Your task to perform on an android device: Open Wikipedia Image 0: 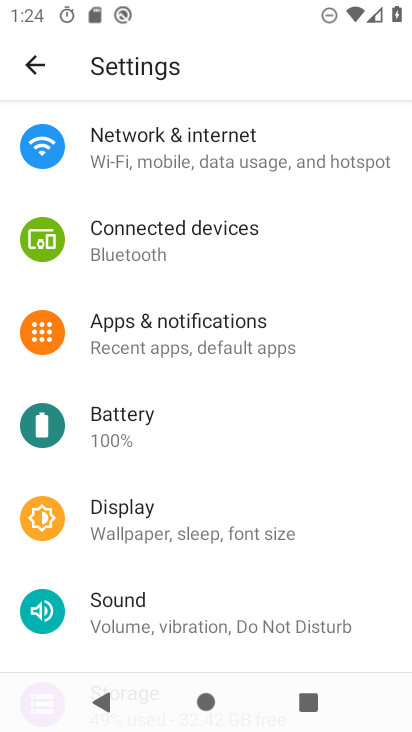
Step 0: press home button
Your task to perform on an android device: Open Wikipedia Image 1: 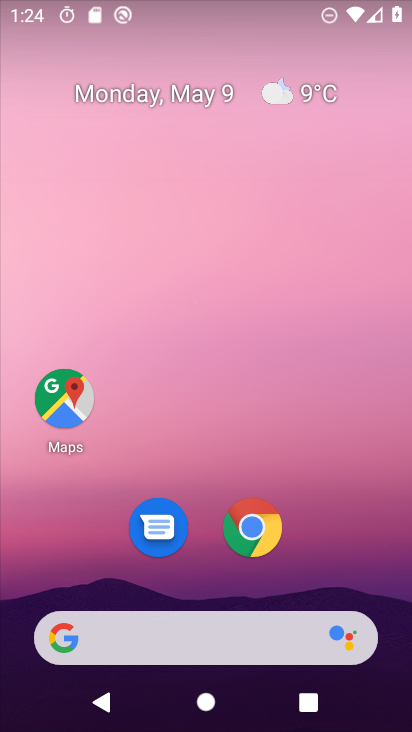
Step 1: click (259, 542)
Your task to perform on an android device: Open Wikipedia Image 2: 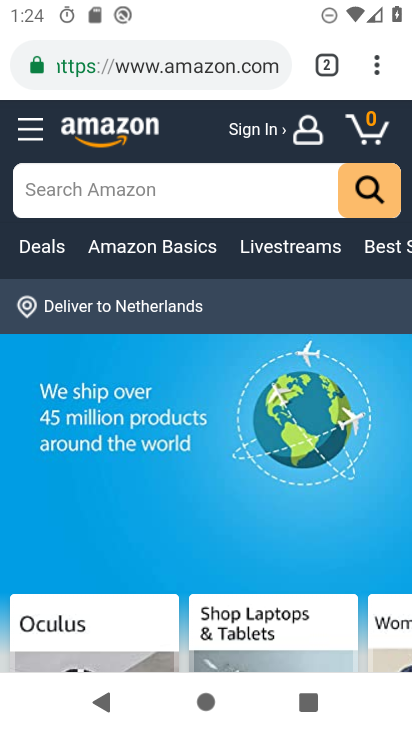
Step 2: click (329, 64)
Your task to perform on an android device: Open Wikipedia Image 3: 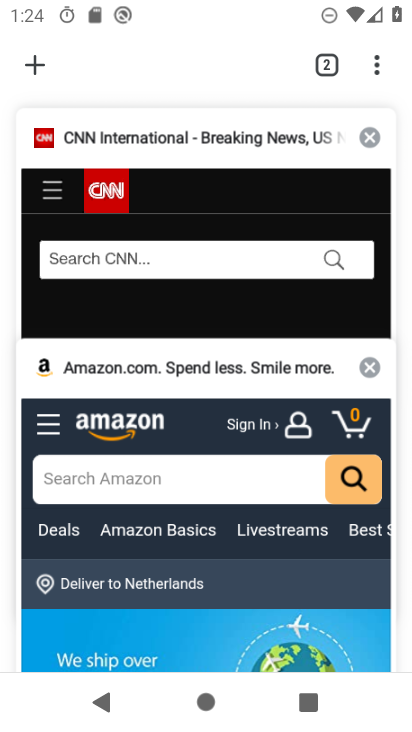
Step 3: click (33, 45)
Your task to perform on an android device: Open Wikipedia Image 4: 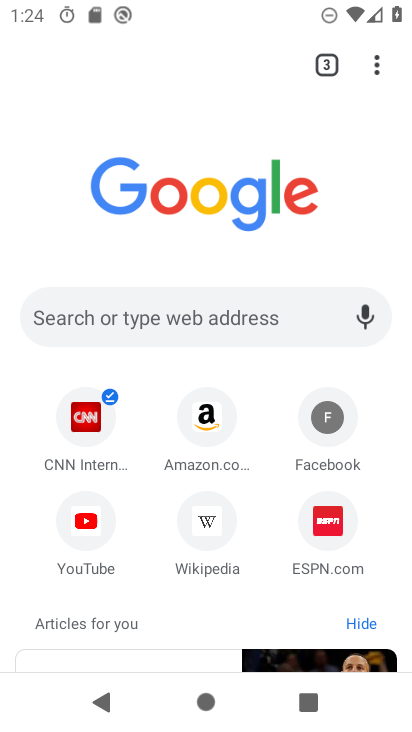
Step 4: click (200, 527)
Your task to perform on an android device: Open Wikipedia Image 5: 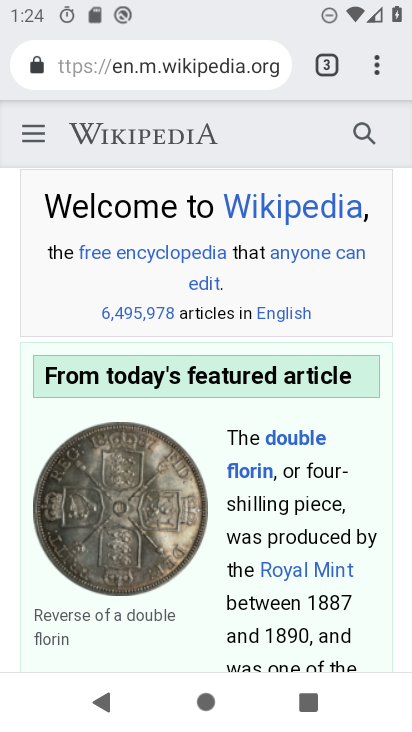
Step 5: task complete